Your task to perform on an android device: Open Yahoo.com Image 0: 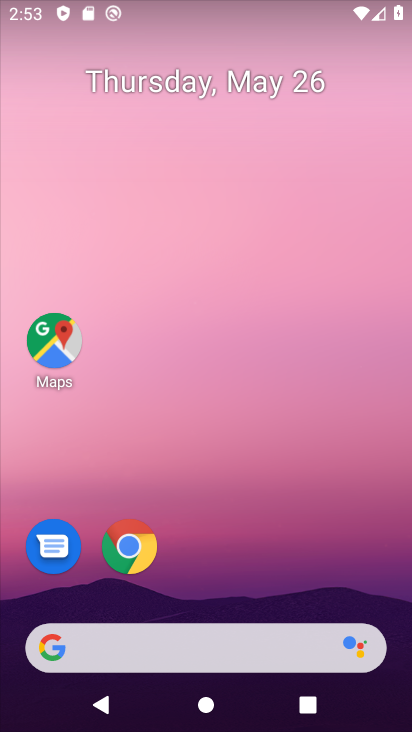
Step 0: click (132, 541)
Your task to perform on an android device: Open Yahoo.com Image 1: 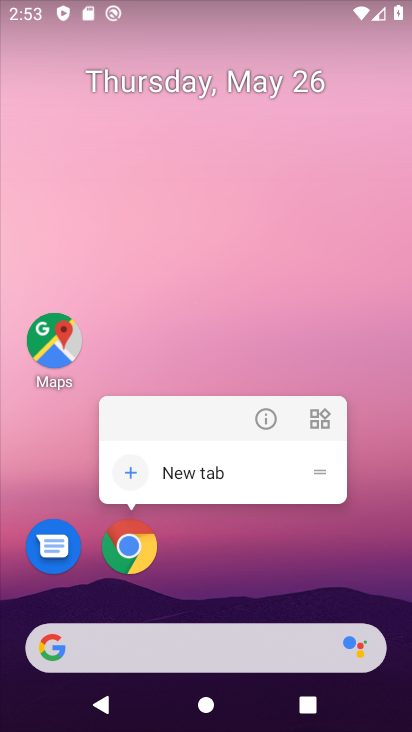
Step 1: click (132, 541)
Your task to perform on an android device: Open Yahoo.com Image 2: 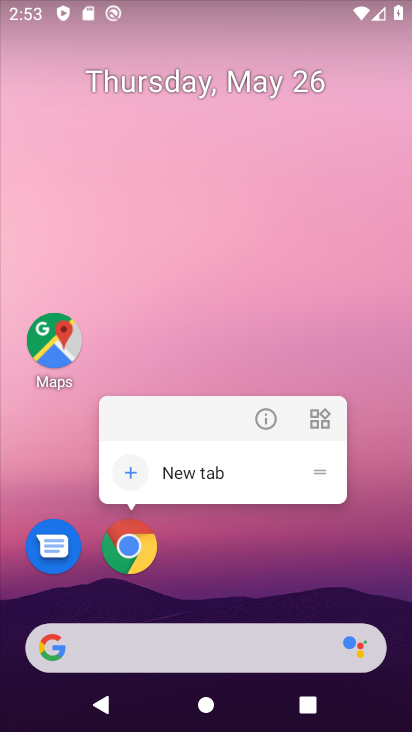
Step 2: click (129, 537)
Your task to perform on an android device: Open Yahoo.com Image 3: 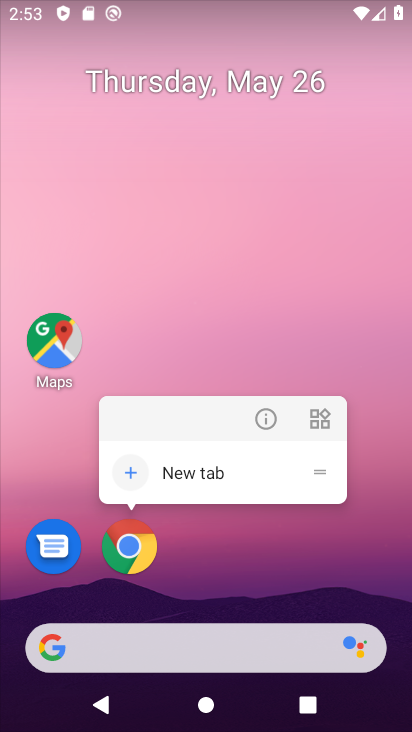
Step 3: click (129, 537)
Your task to perform on an android device: Open Yahoo.com Image 4: 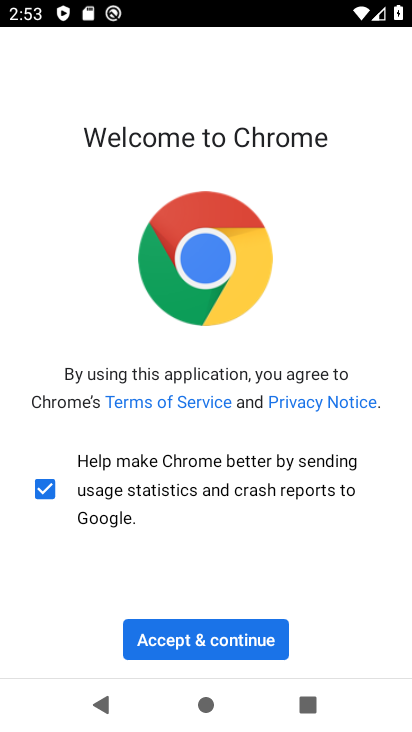
Step 4: click (151, 655)
Your task to perform on an android device: Open Yahoo.com Image 5: 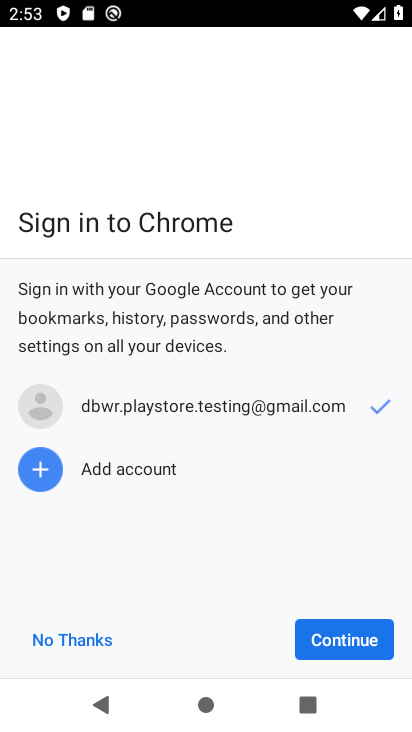
Step 5: click (343, 647)
Your task to perform on an android device: Open Yahoo.com Image 6: 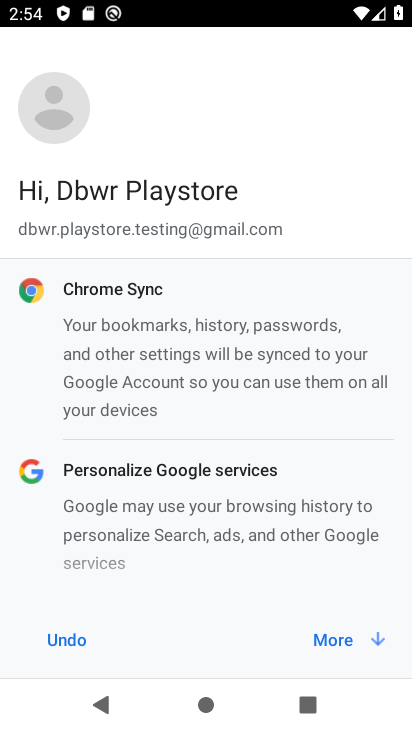
Step 6: click (346, 637)
Your task to perform on an android device: Open Yahoo.com Image 7: 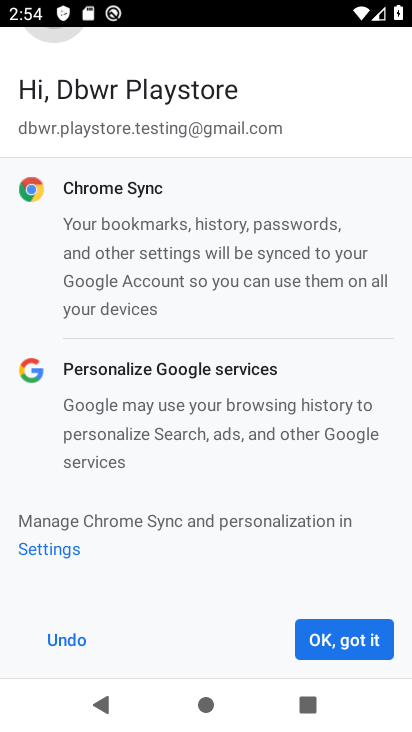
Step 7: click (358, 642)
Your task to perform on an android device: Open Yahoo.com Image 8: 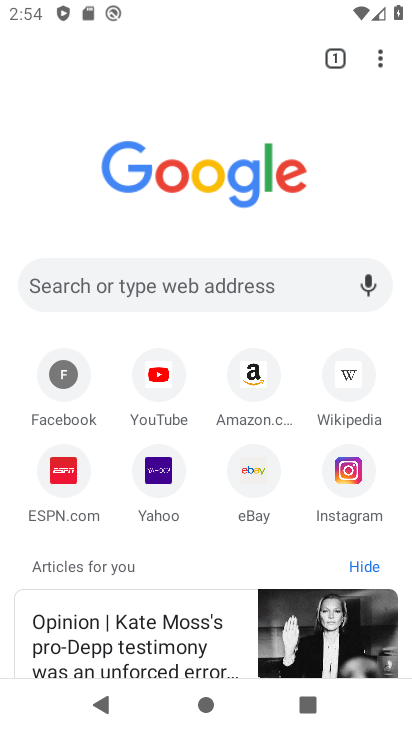
Step 8: click (150, 493)
Your task to perform on an android device: Open Yahoo.com Image 9: 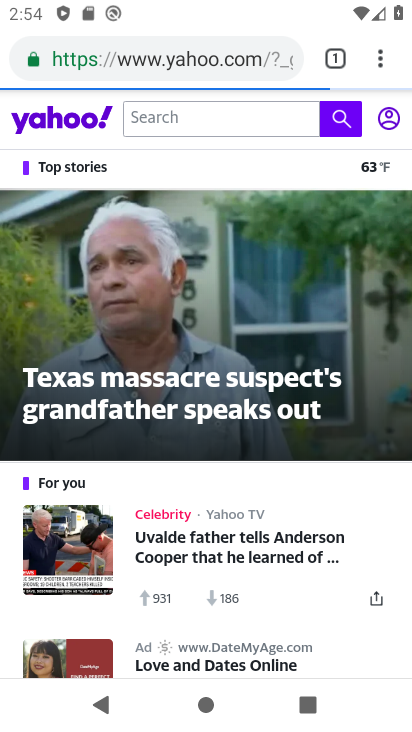
Step 9: task complete